Your task to perform on an android device: Show me productivity apps on the Play Store Image 0: 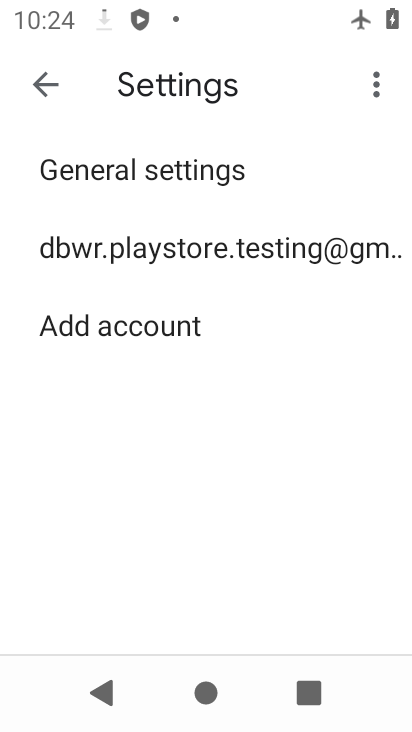
Step 0: press home button
Your task to perform on an android device: Show me productivity apps on the Play Store Image 1: 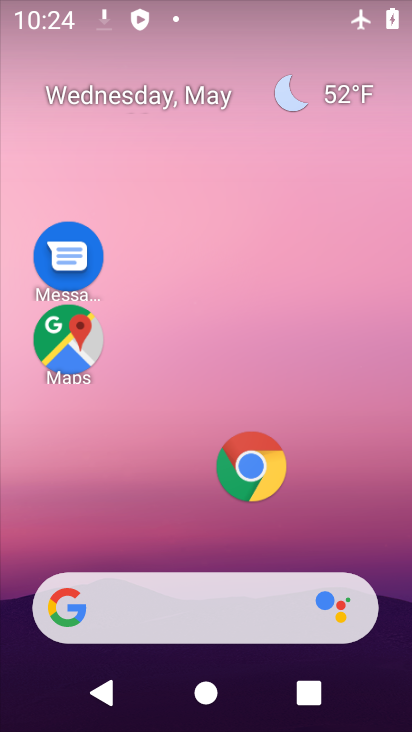
Step 1: drag from (181, 530) to (188, 75)
Your task to perform on an android device: Show me productivity apps on the Play Store Image 2: 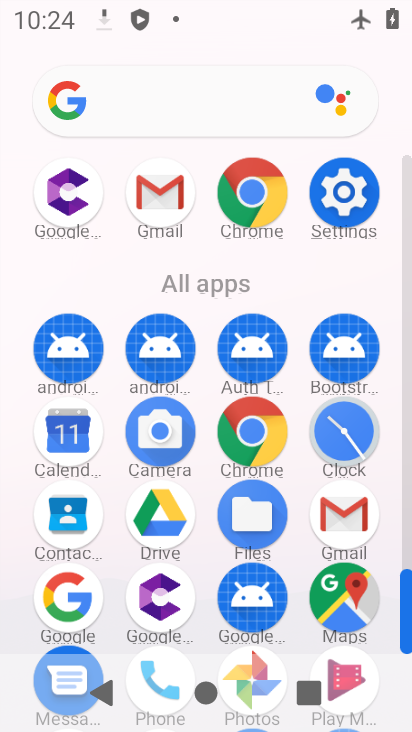
Step 2: drag from (117, 543) to (140, 216)
Your task to perform on an android device: Show me productivity apps on the Play Store Image 3: 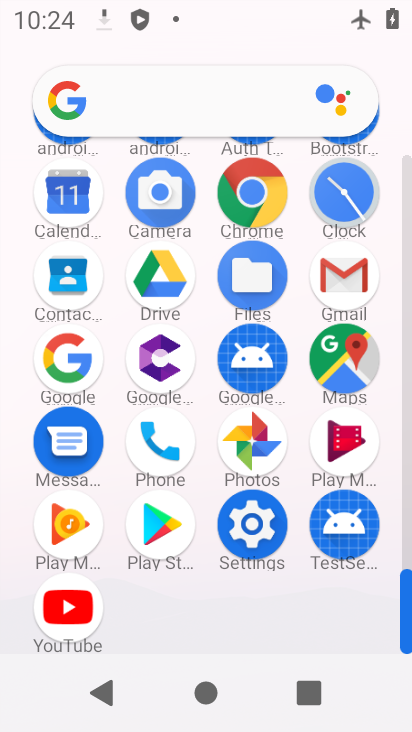
Step 3: click (160, 539)
Your task to perform on an android device: Show me productivity apps on the Play Store Image 4: 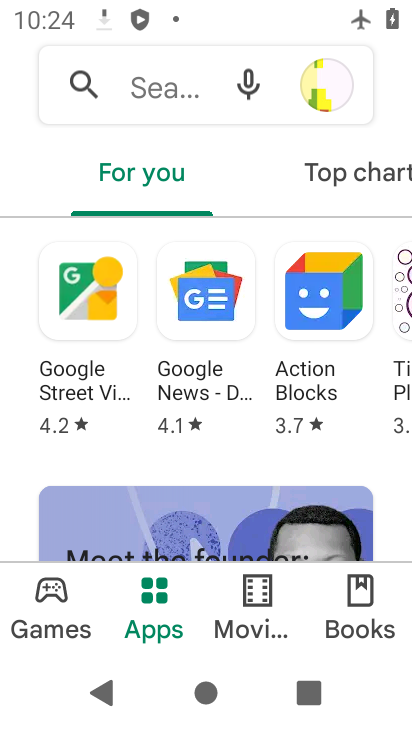
Step 4: drag from (289, 255) to (281, 421)
Your task to perform on an android device: Show me productivity apps on the Play Store Image 5: 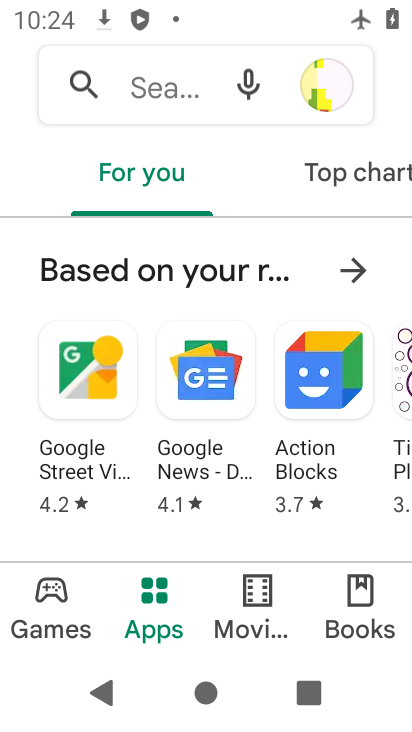
Step 5: drag from (321, 188) to (219, 210)
Your task to perform on an android device: Show me productivity apps on the Play Store Image 6: 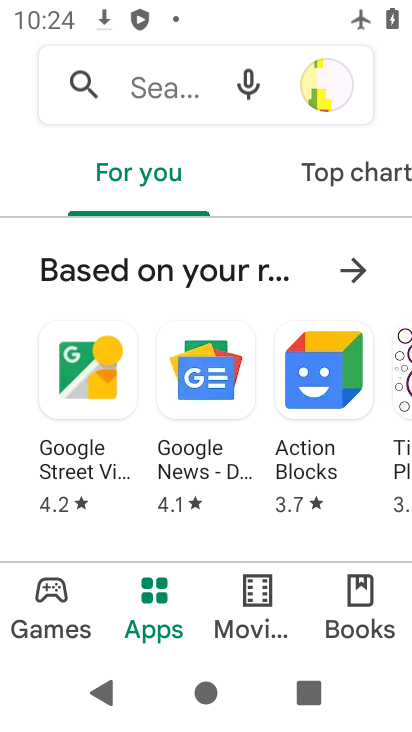
Step 6: click (347, 277)
Your task to perform on an android device: Show me productivity apps on the Play Store Image 7: 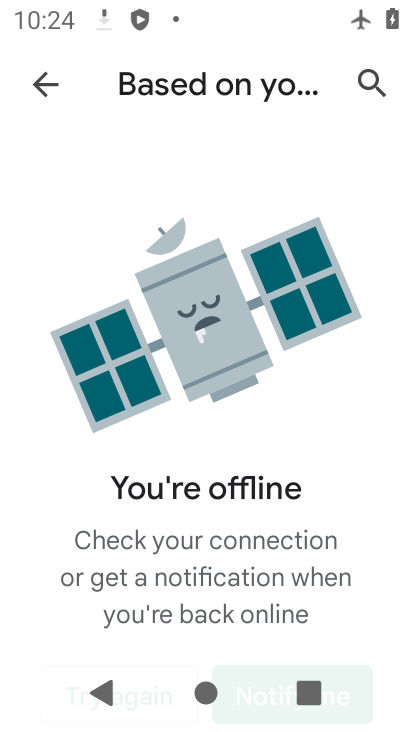
Step 7: task complete